Your task to perform on an android device: Go to Android settings Image 0: 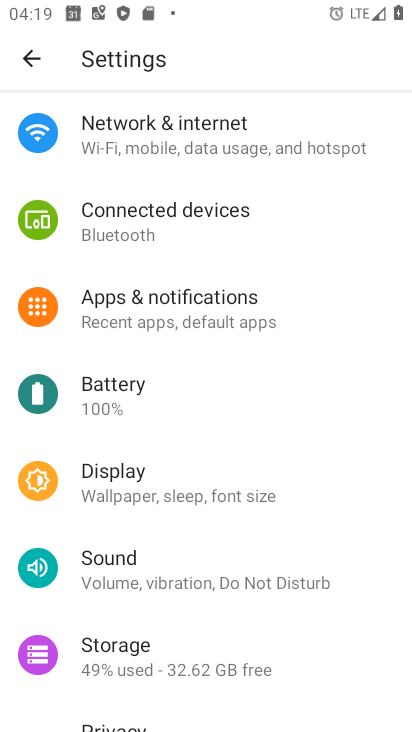
Step 0: drag from (264, 676) to (167, 38)
Your task to perform on an android device: Go to Android settings Image 1: 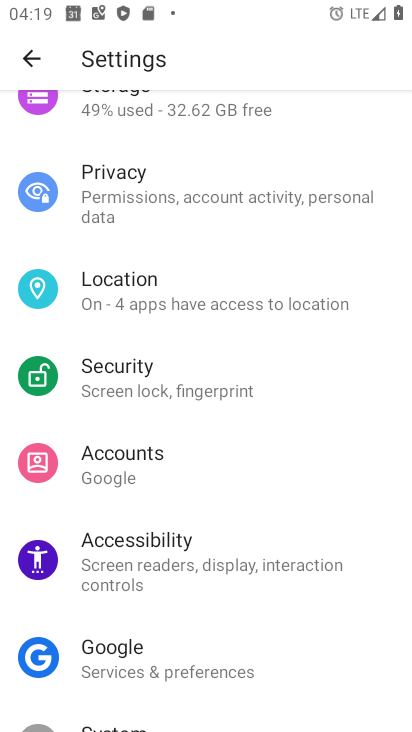
Step 1: drag from (199, 704) to (142, 196)
Your task to perform on an android device: Go to Android settings Image 2: 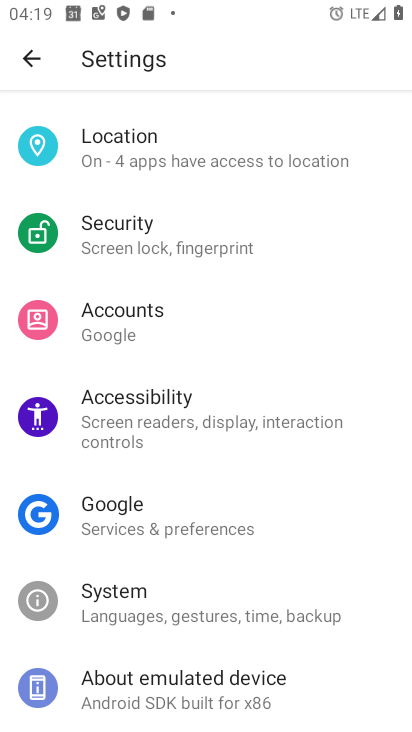
Step 2: click (166, 670)
Your task to perform on an android device: Go to Android settings Image 3: 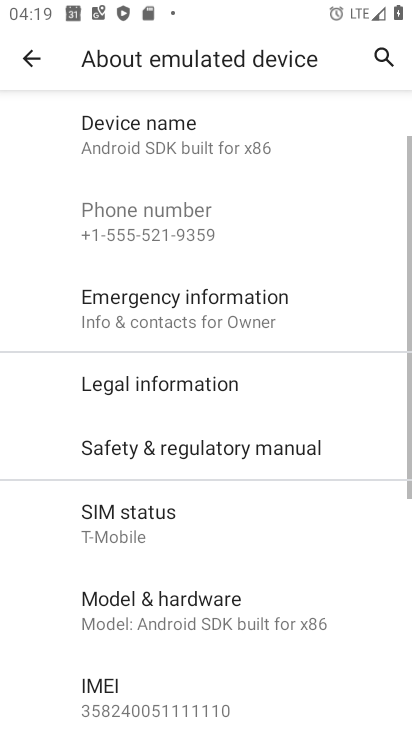
Step 3: drag from (170, 704) to (141, 177)
Your task to perform on an android device: Go to Android settings Image 4: 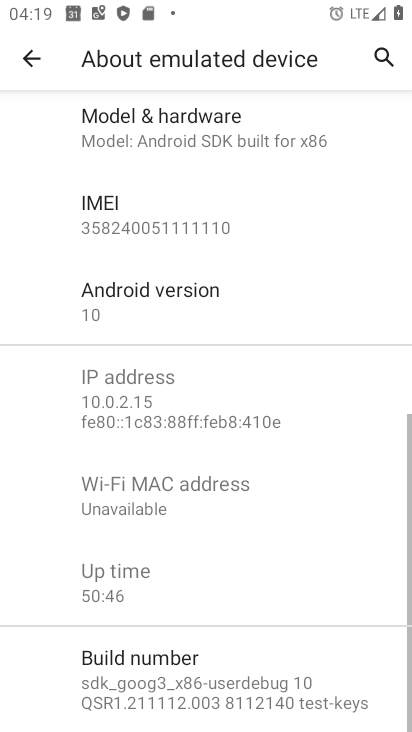
Step 4: click (175, 305)
Your task to perform on an android device: Go to Android settings Image 5: 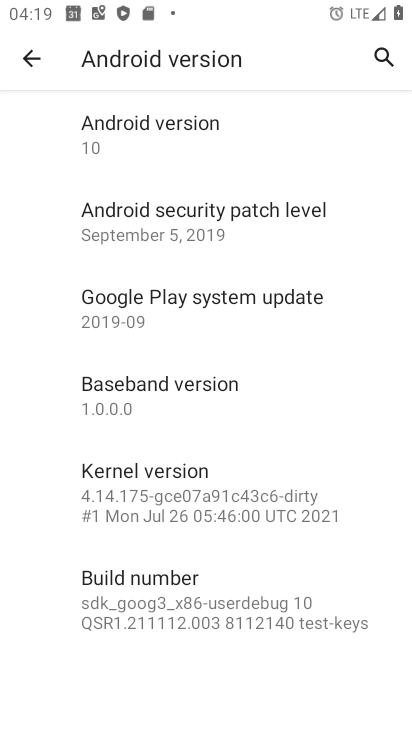
Step 5: task complete